Your task to perform on an android device: clear history in the chrome app Image 0: 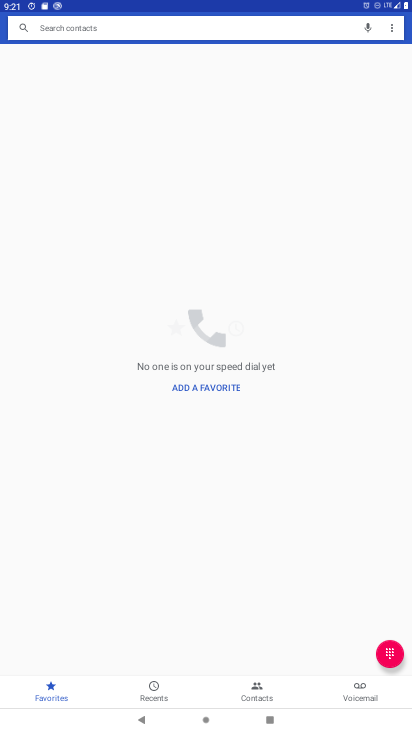
Step 0: press home button
Your task to perform on an android device: clear history in the chrome app Image 1: 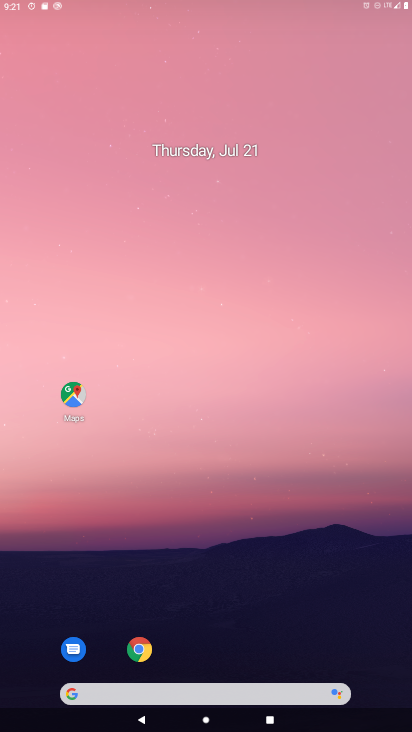
Step 1: drag from (386, 632) to (193, 44)
Your task to perform on an android device: clear history in the chrome app Image 2: 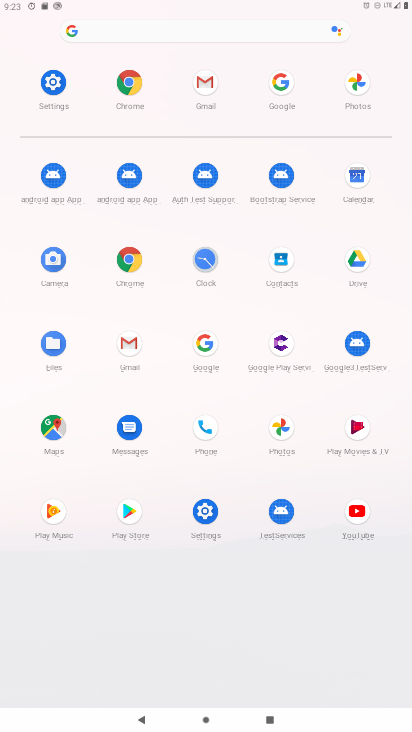
Step 2: click (124, 275)
Your task to perform on an android device: clear history in the chrome app Image 3: 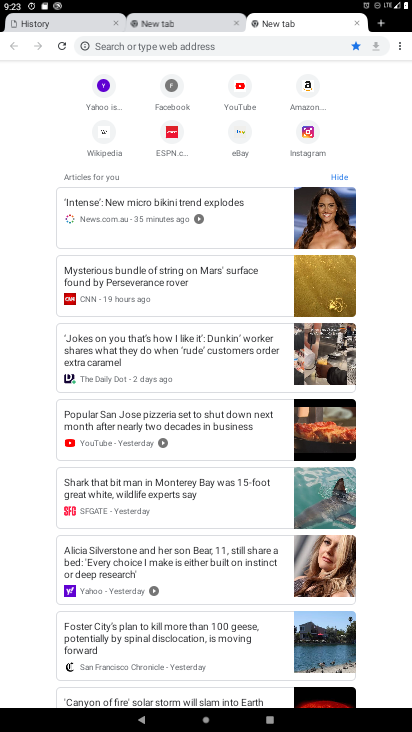
Step 3: click (397, 45)
Your task to perform on an android device: clear history in the chrome app Image 4: 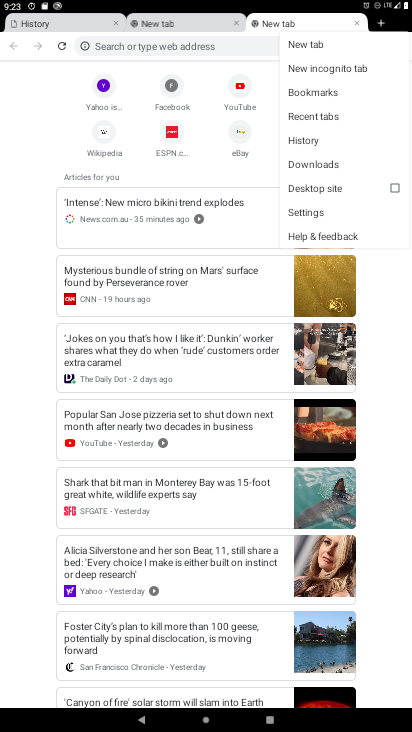
Step 4: click (309, 144)
Your task to perform on an android device: clear history in the chrome app Image 5: 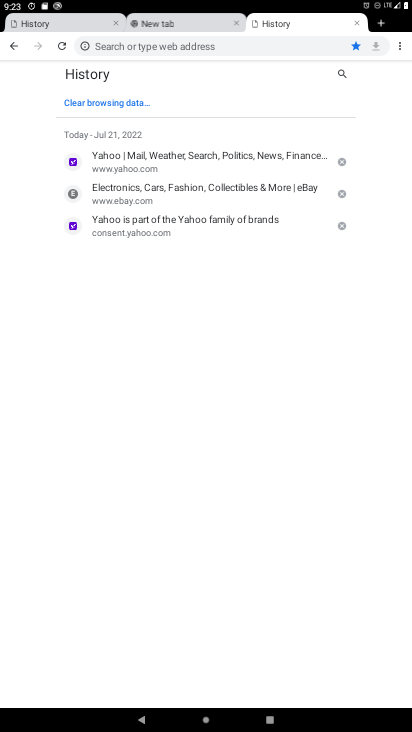
Step 5: click (92, 105)
Your task to perform on an android device: clear history in the chrome app Image 6: 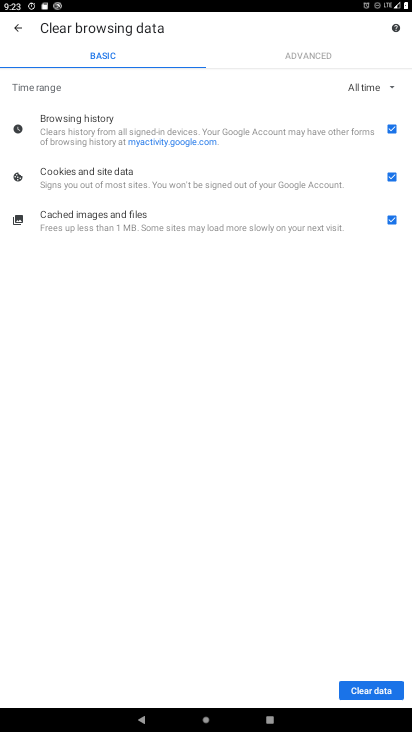
Step 6: click (379, 695)
Your task to perform on an android device: clear history in the chrome app Image 7: 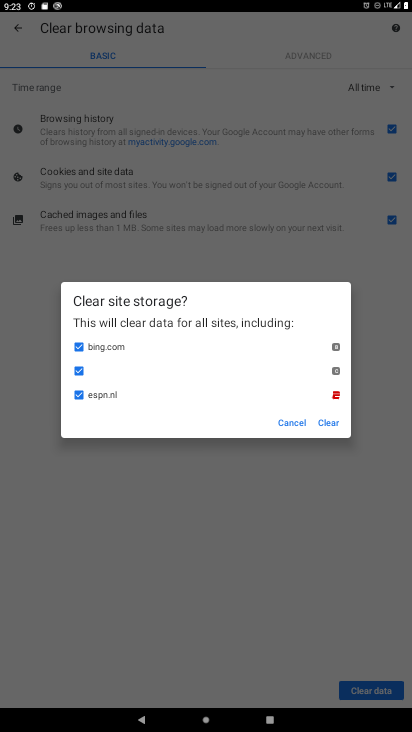
Step 7: click (331, 422)
Your task to perform on an android device: clear history in the chrome app Image 8: 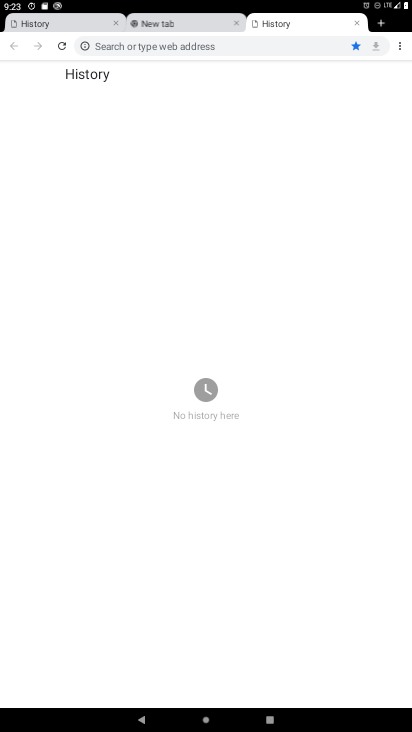
Step 8: task complete